Your task to perform on an android device: Open settings Image 0: 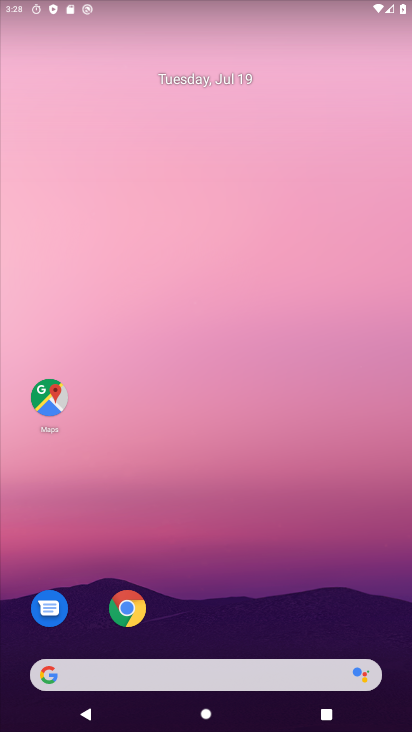
Step 0: drag from (39, 663) to (270, 100)
Your task to perform on an android device: Open settings Image 1: 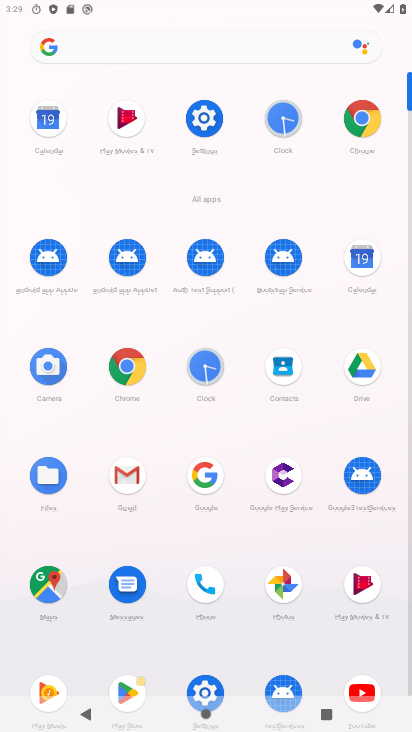
Step 1: click (205, 123)
Your task to perform on an android device: Open settings Image 2: 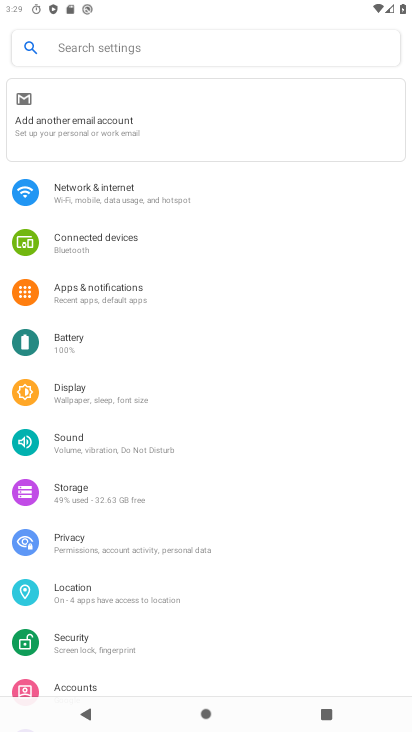
Step 2: task complete